Your task to perform on an android device: Set the phone to "Do not disturb". Image 0: 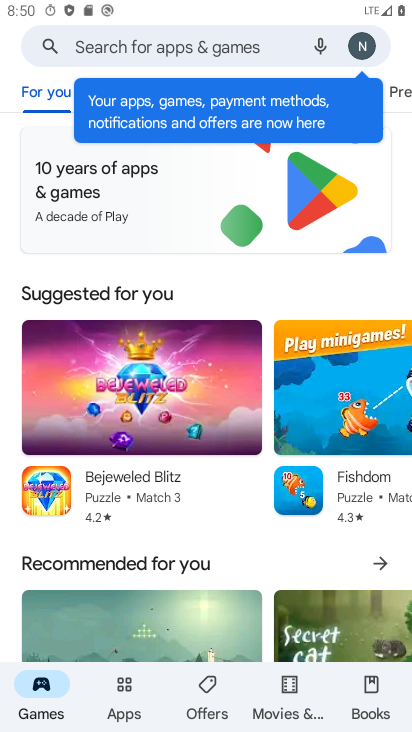
Step 0: press home button
Your task to perform on an android device: Set the phone to "Do not disturb". Image 1: 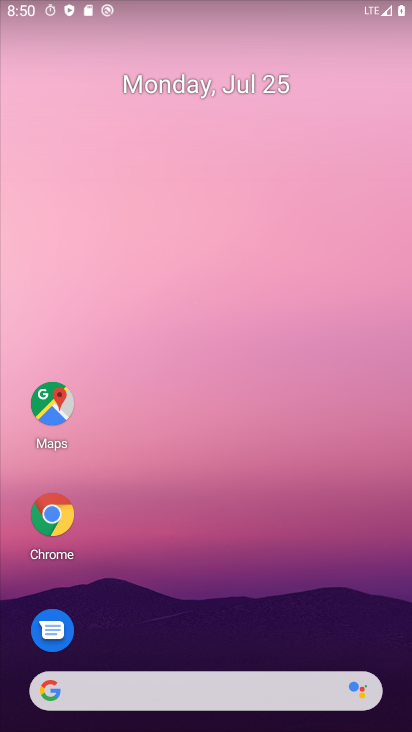
Step 1: drag from (19, 666) to (207, 216)
Your task to perform on an android device: Set the phone to "Do not disturb". Image 2: 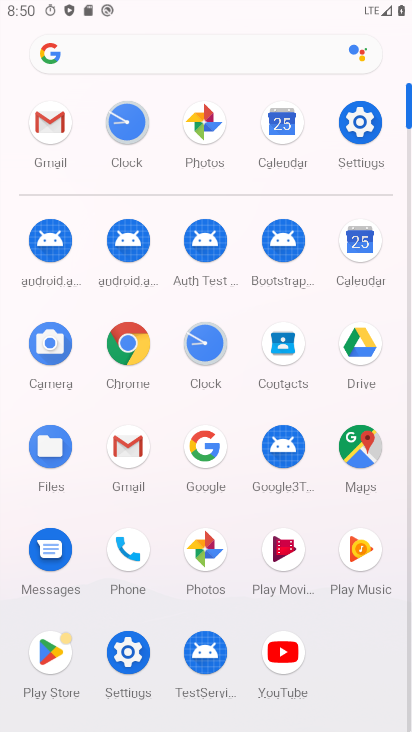
Step 2: click (134, 656)
Your task to perform on an android device: Set the phone to "Do not disturb". Image 3: 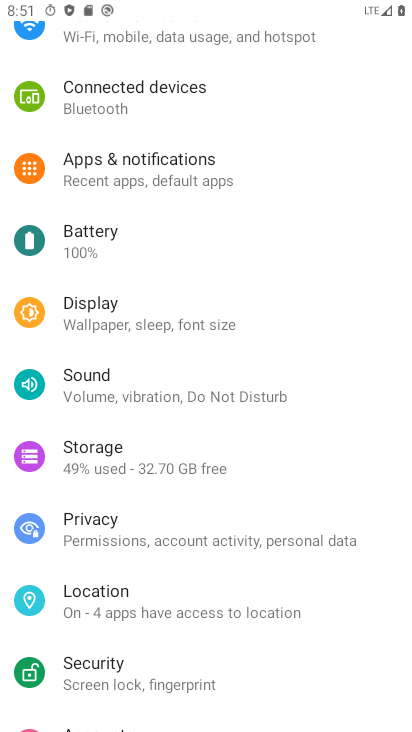
Step 3: click (211, 396)
Your task to perform on an android device: Set the phone to "Do not disturb". Image 4: 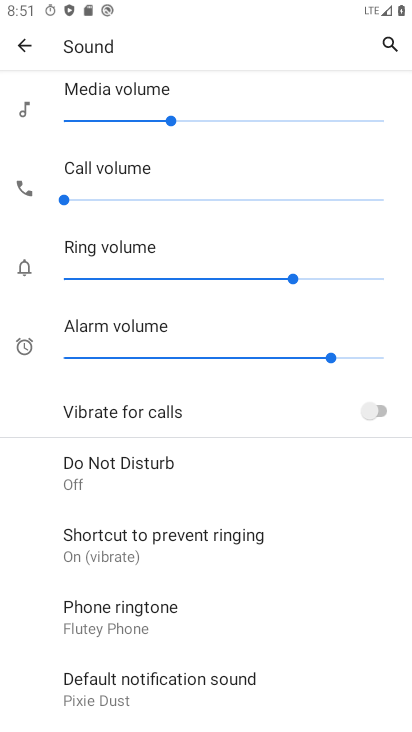
Step 4: click (145, 469)
Your task to perform on an android device: Set the phone to "Do not disturb". Image 5: 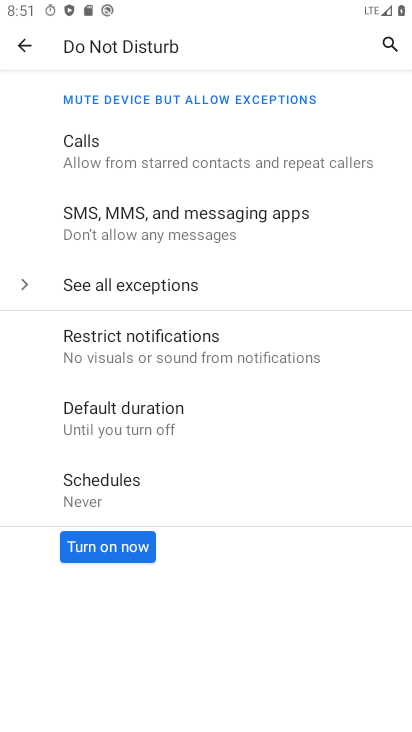
Step 5: click (101, 547)
Your task to perform on an android device: Set the phone to "Do not disturb". Image 6: 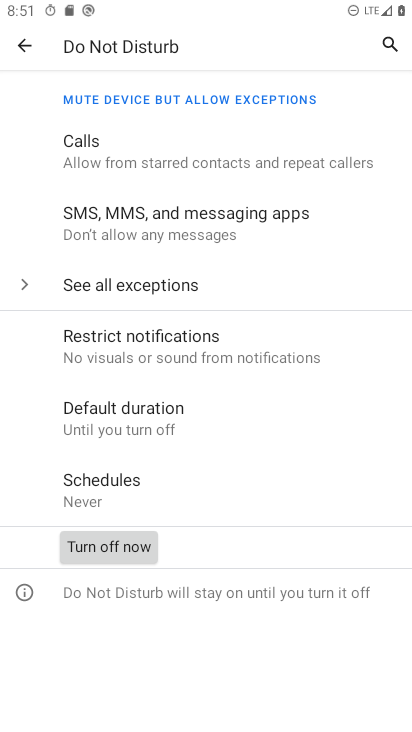
Step 6: task complete